Your task to perform on an android device: Clear the shopping cart on amazon. Add "macbook pro" to the cart on amazon Image 0: 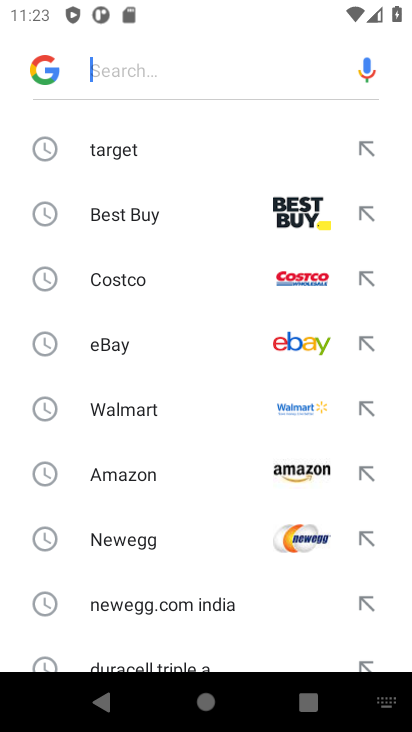
Step 0: type "amazon.com"
Your task to perform on an android device: Clear the shopping cart on amazon. Add "macbook pro" to the cart on amazon Image 1: 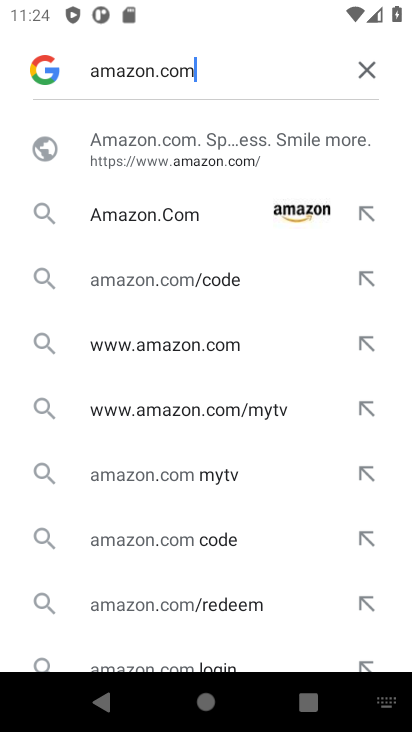
Step 1: click (166, 154)
Your task to perform on an android device: Clear the shopping cart on amazon. Add "macbook pro" to the cart on amazon Image 2: 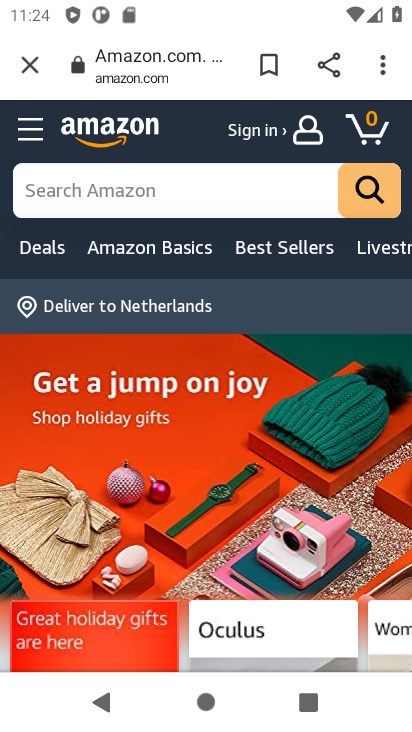
Step 2: click (372, 129)
Your task to perform on an android device: Clear the shopping cart on amazon. Add "macbook pro" to the cart on amazon Image 3: 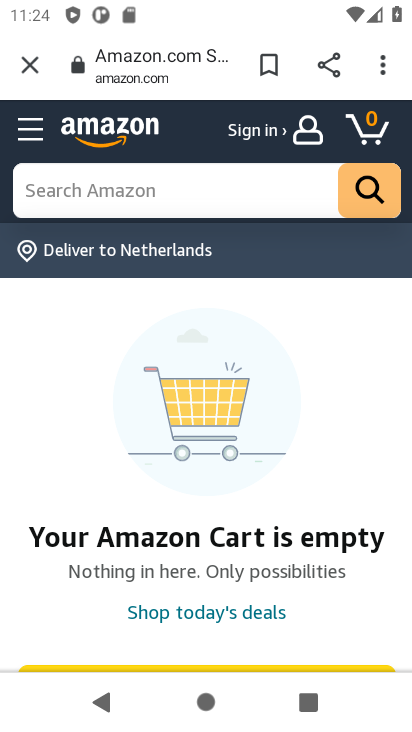
Step 3: click (39, 187)
Your task to perform on an android device: Clear the shopping cart on amazon. Add "macbook pro" to the cart on amazon Image 4: 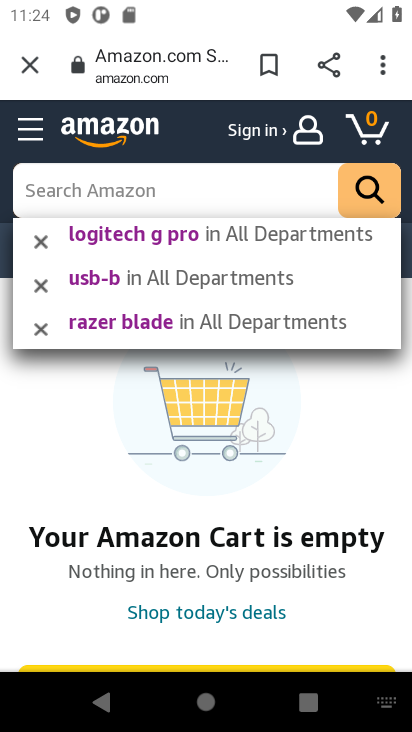
Step 4: type "macbook pro"
Your task to perform on an android device: Clear the shopping cart on amazon. Add "macbook pro" to the cart on amazon Image 5: 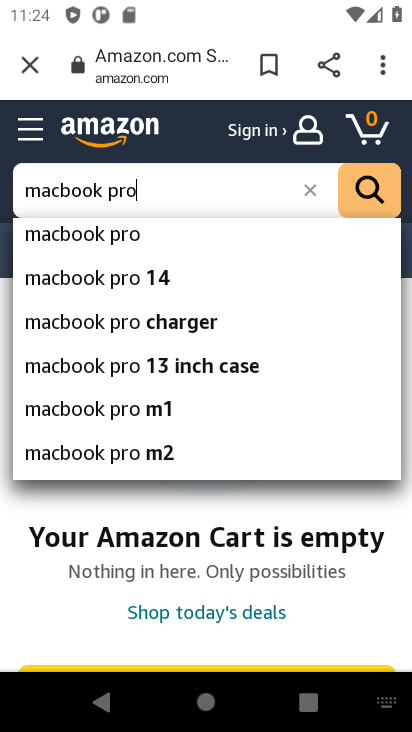
Step 5: click (83, 236)
Your task to perform on an android device: Clear the shopping cart on amazon. Add "macbook pro" to the cart on amazon Image 6: 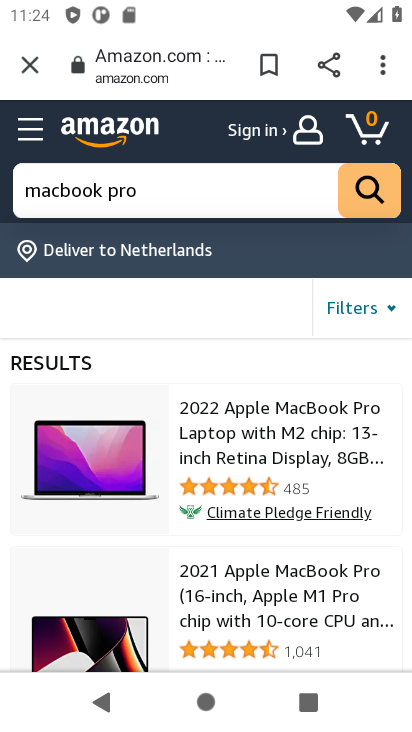
Step 6: drag from (179, 510) to (163, 206)
Your task to perform on an android device: Clear the shopping cart on amazon. Add "macbook pro" to the cart on amazon Image 7: 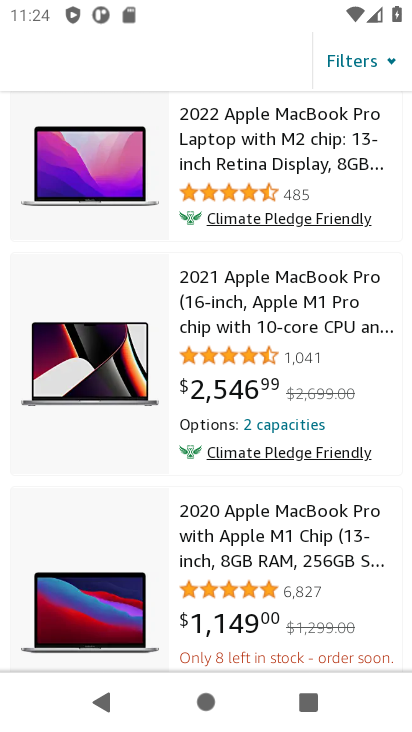
Step 7: drag from (166, 481) to (177, 199)
Your task to perform on an android device: Clear the shopping cart on amazon. Add "macbook pro" to the cart on amazon Image 8: 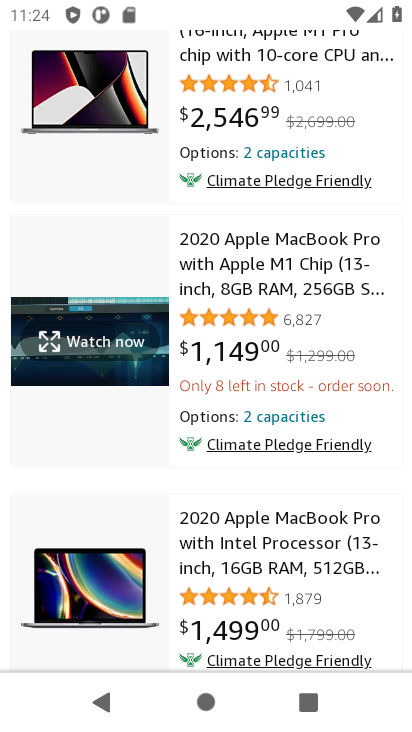
Step 8: click (252, 296)
Your task to perform on an android device: Clear the shopping cart on amazon. Add "macbook pro" to the cart on amazon Image 9: 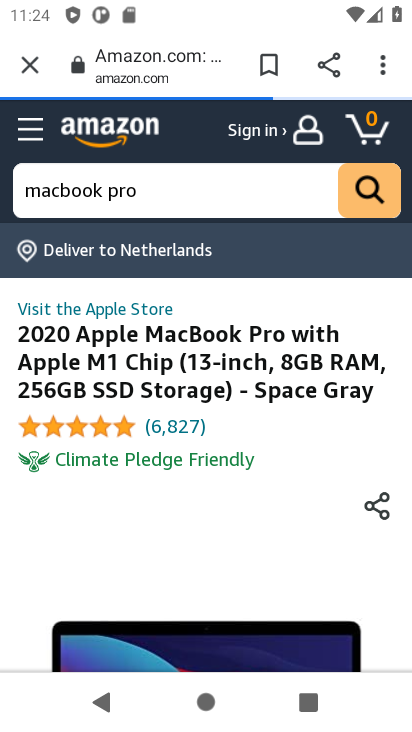
Step 9: drag from (191, 474) to (182, 223)
Your task to perform on an android device: Clear the shopping cart on amazon. Add "macbook pro" to the cart on amazon Image 10: 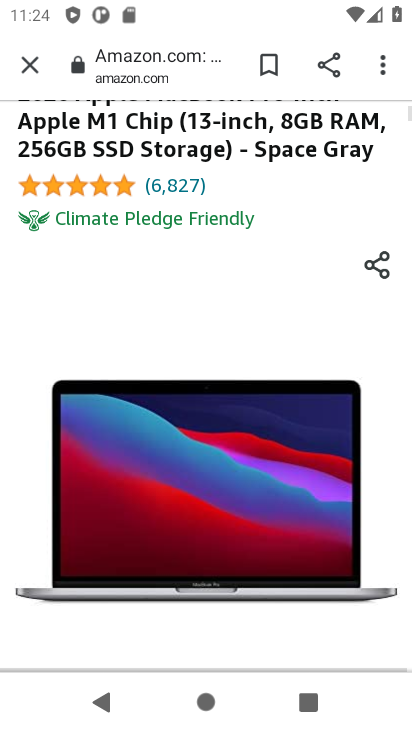
Step 10: drag from (194, 470) to (193, 139)
Your task to perform on an android device: Clear the shopping cart on amazon. Add "macbook pro" to the cart on amazon Image 11: 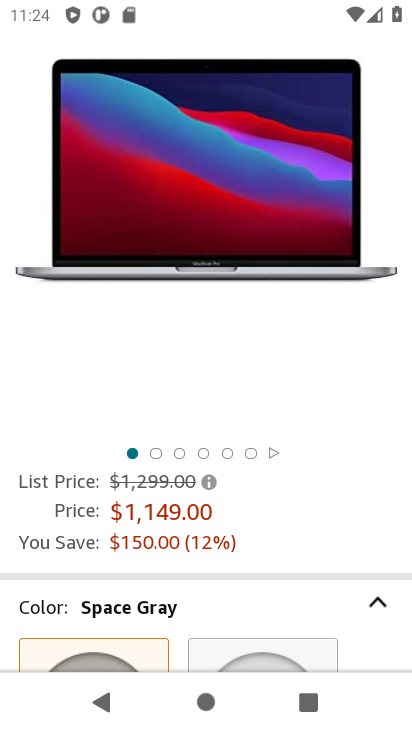
Step 11: drag from (199, 443) to (196, 140)
Your task to perform on an android device: Clear the shopping cart on amazon. Add "macbook pro" to the cart on amazon Image 12: 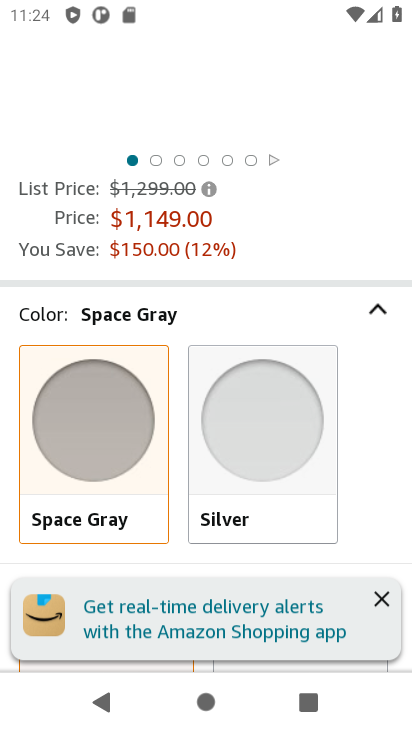
Step 12: drag from (178, 539) to (187, 197)
Your task to perform on an android device: Clear the shopping cart on amazon. Add "macbook pro" to the cart on amazon Image 13: 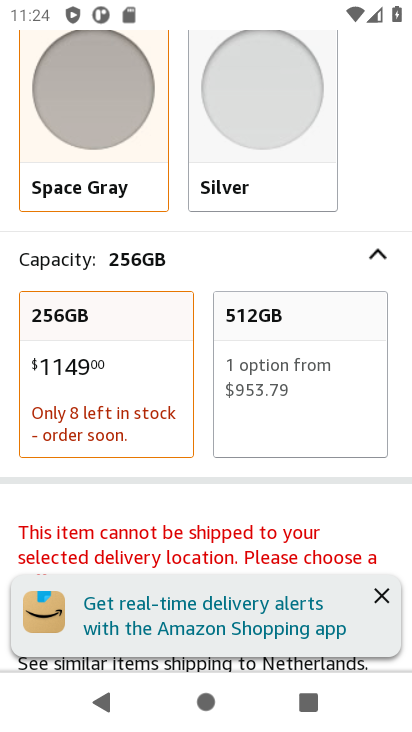
Step 13: drag from (191, 474) to (200, 259)
Your task to perform on an android device: Clear the shopping cart on amazon. Add "macbook pro" to the cart on amazon Image 14: 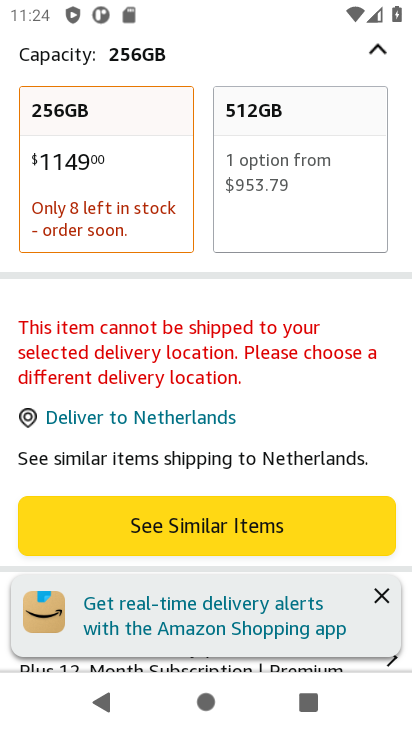
Step 14: press back button
Your task to perform on an android device: Clear the shopping cart on amazon. Add "macbook pro" to the cart on amazon Image 15: 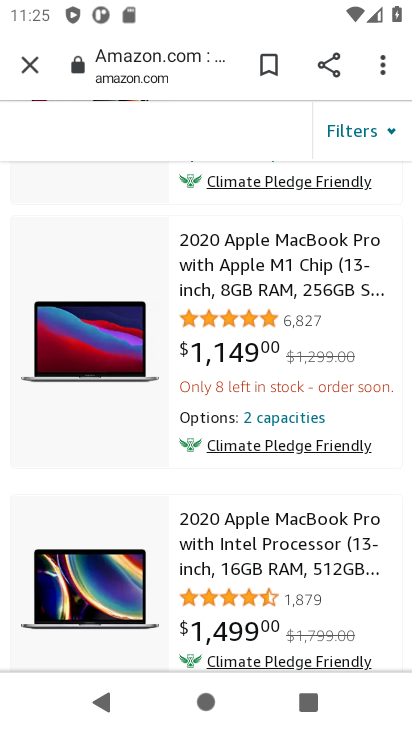
Step 15: drag from (231, 463) to (261, 250)
Your task to perform on an android device: Clear the shopping cart on amazon. Add "macbook pro" to the cart on amazon Image 16: 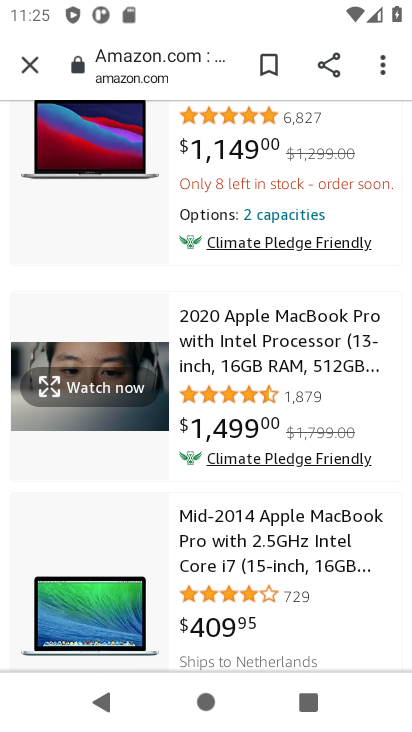
Step 16: drag from (212, 441) to (232, 222)
Your task to perform on an android device: Clear the shopping cart on amazon. Add "macbook pro" to the cart on amazon Image 17: 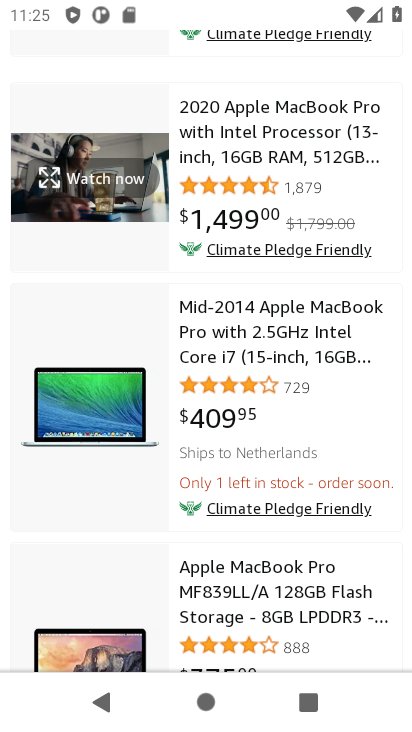
Step 17: click (199, 361)
Your task to perform on an android device: Clear the shopping cart on amazon. Add "macbook pro" to the cart on amazon Image 18: 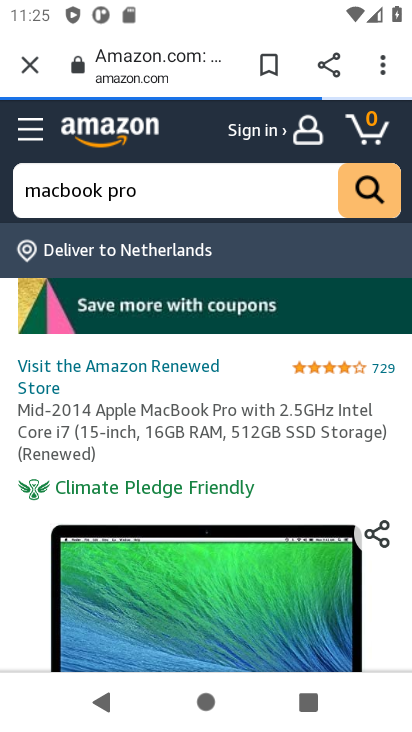
Step 18: drag from (164, 549) to (177, 180)
Your task to perform on an android device: Clear the shopping cart on amazon. Add "macbook pro" to the cart on amazon Image 19: 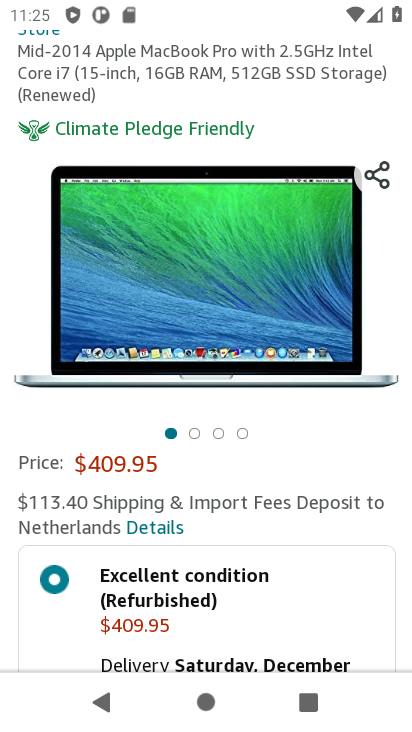
Step 19: drag from (169, 452) to (197, 170)
Your task to perform on an android device: Clear the shopping cart on amazon. Add "macbook pro" to the cart on amazon Image 20: 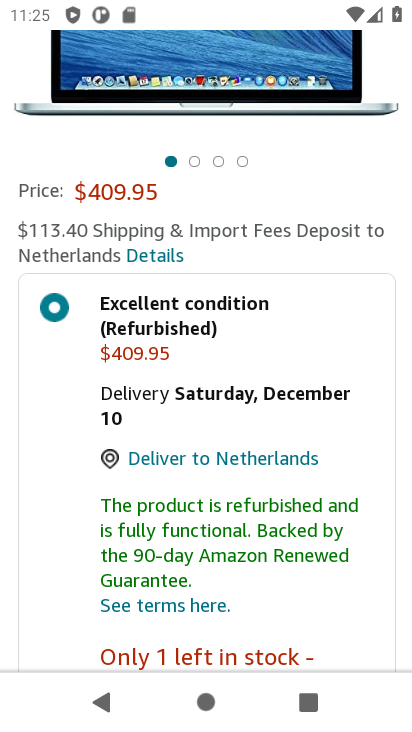
Step 20: drag from (195, 435) to (213, 151)
Your task to perform on an android device: Clear the shopping cart on amazon. Add "macbook pro" to the cart on amazon Image 21: 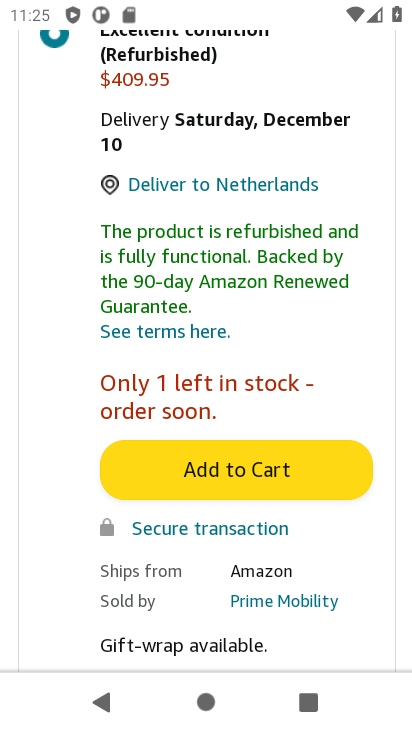
Step 21: click (196, 472)
Your task to perform on an android device: Clear the shopping cart on amazon. Add "macbook pro" to the cart on amazon Image 22: 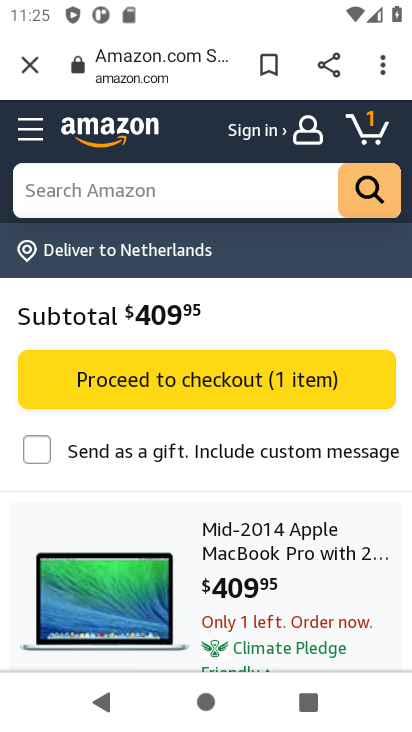
Step 22: task complete